Your task to perform on an android device: Open calendar and show me the second week of next month Image 0: 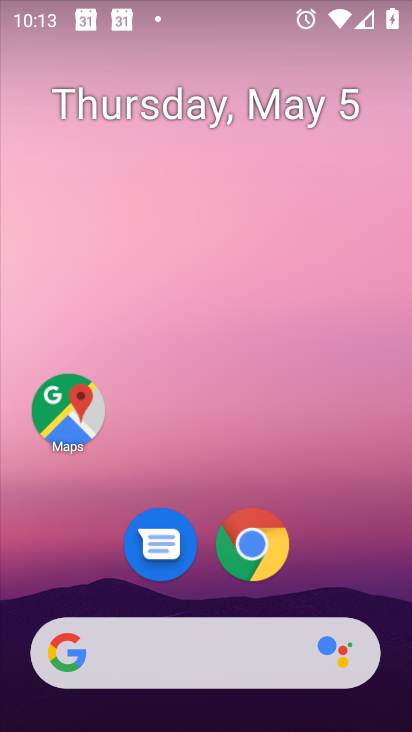
Step 0: drag from (317, 600) to (327, 179)
Your task to perform on an android device: Open calendar and show me the second week of next month Image 1: 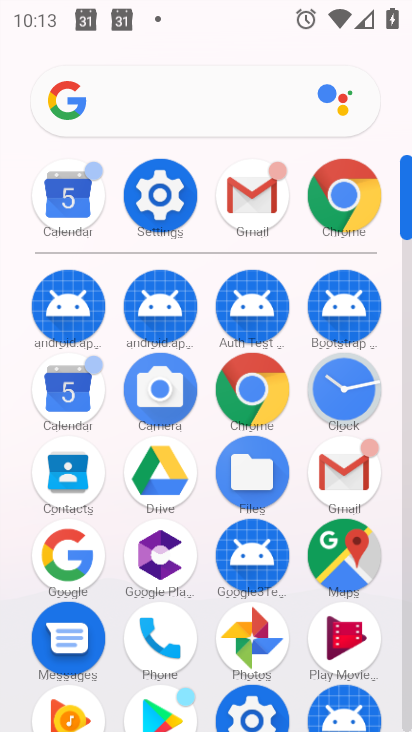
Step 1: click (62, 186)
Your task to perform on an android device: Open calendar and show me the second week of next month Image 2: 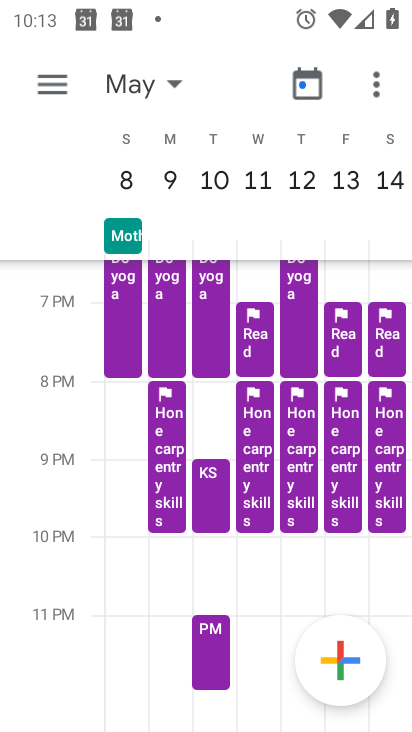
Step 2: click (160, 98)
Your task to perform on an android device: Open calendar and show me the second week of next month Image 3: 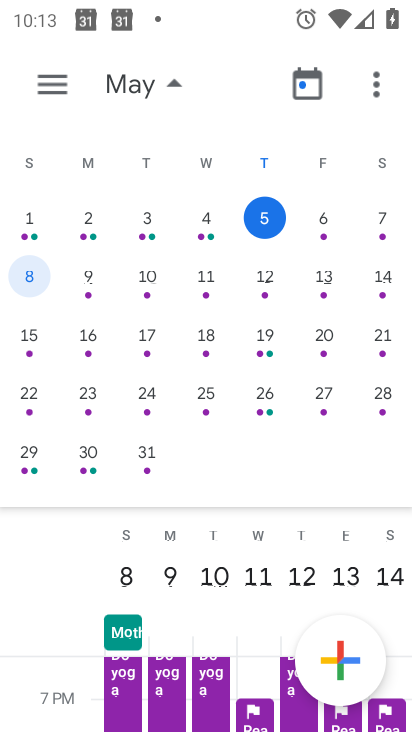
Step 3: drag from (234, 273) to (2, 273)
Your task to perform on an android device: Open calendar and show me the second week of next month Image 4: 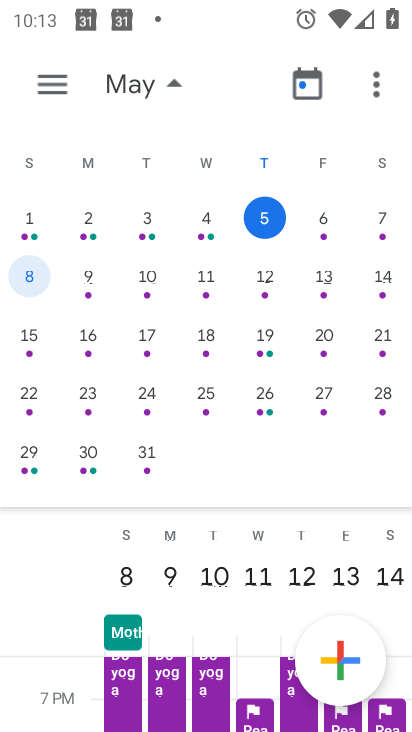
Step 4: drag from (389, 307) to (13, 296)
Your task to perform on an android device: Open calendar and show me the second week of next month Image 5: 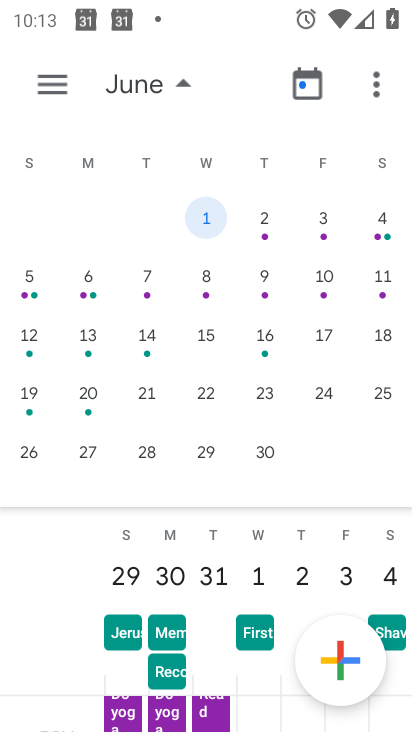
Step 5: click (210, 327)
Your task to perform on an android device: Open calendar and show me the second week of next month Image 6: 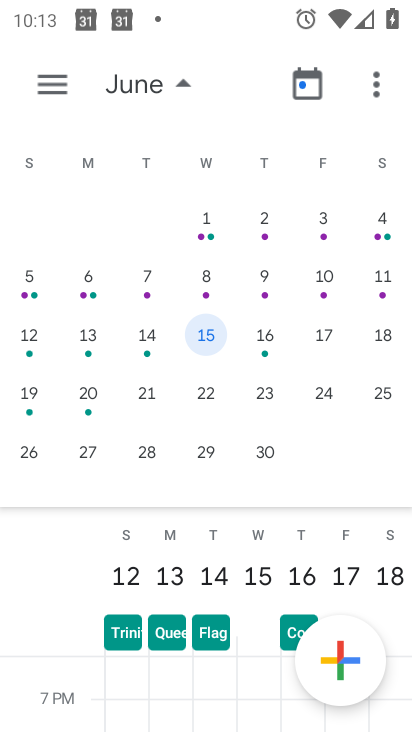
Step 6: task complete